Your task to perform on an android device: add a label to a message in the gmail app Image 0: 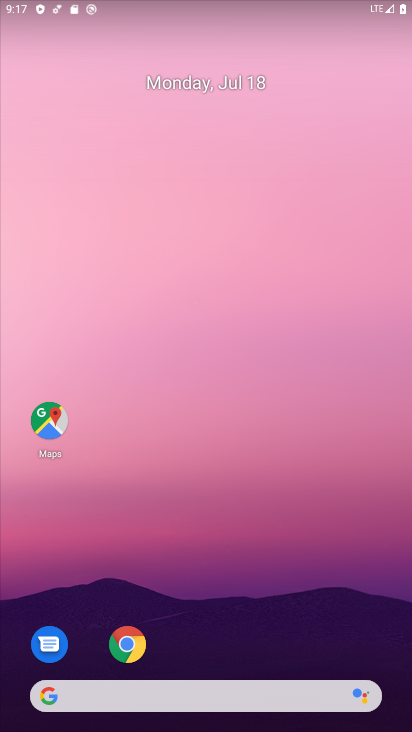
Step 0: drag from (312, 591) to (331, 197)
Your task to perform on an android device: add a label to a message in the gmail app Image 1: 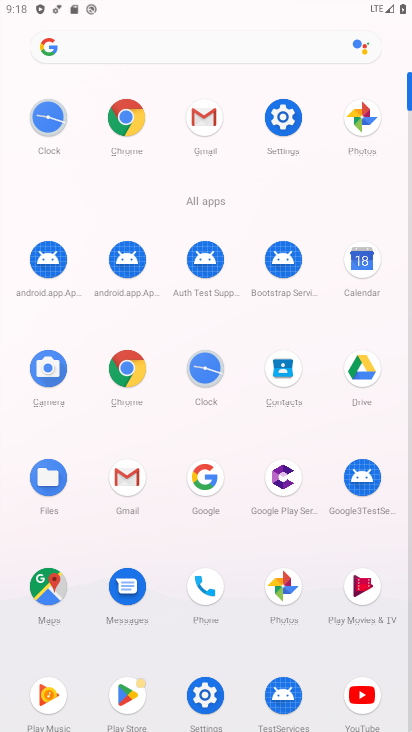
Step 1: click (127, 479)
Your task to perform on an android device: add a label to a message in the gmail app Image 2: 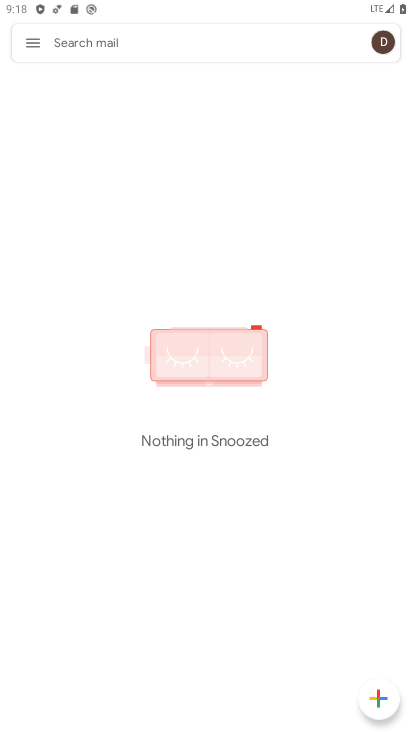
Step 2: click (32, 41)
Your task to perform on an android device: add a label to a message in the gmail app Image 3: 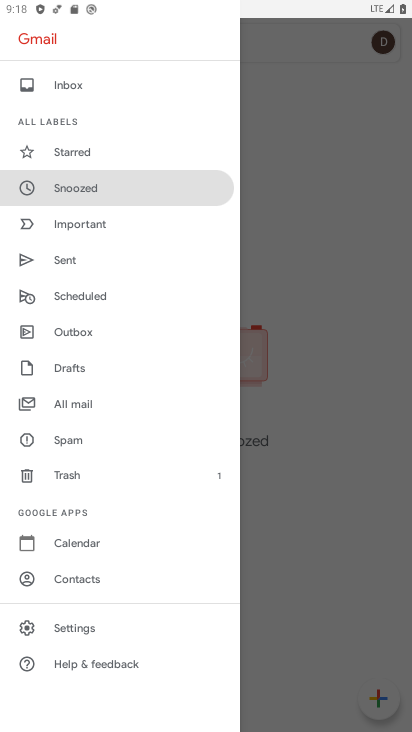
Step 3: drag from (158, 267) to (161, 357)
Your task to perform on an android device: add a label to a message in the gmail app Image 4: 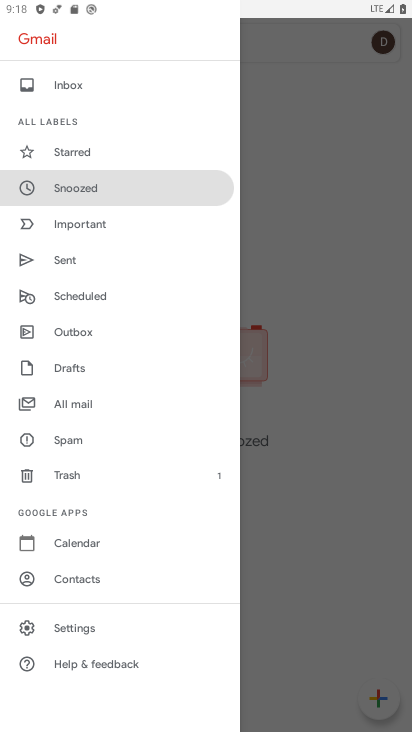
Step 4: click (88, 87)
Your task to perform on an android device: add a label to a message in the gmail app Image 5: 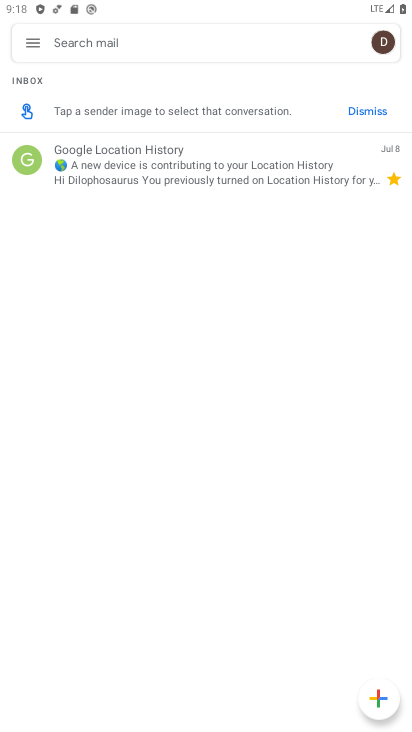
Step 5: click (209, 178)
Your task to perform on an android device: add a label to a message in the gmail app Image 6: 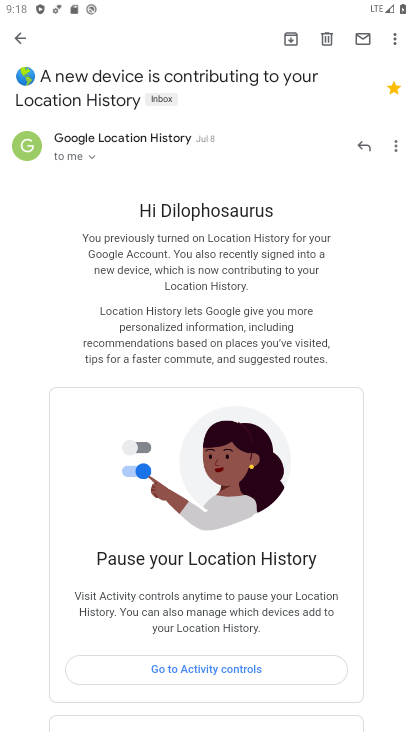
Step 6: click (166, 95)
Your task to perform on an android device: add a label to a message in the gmail app Image 7: 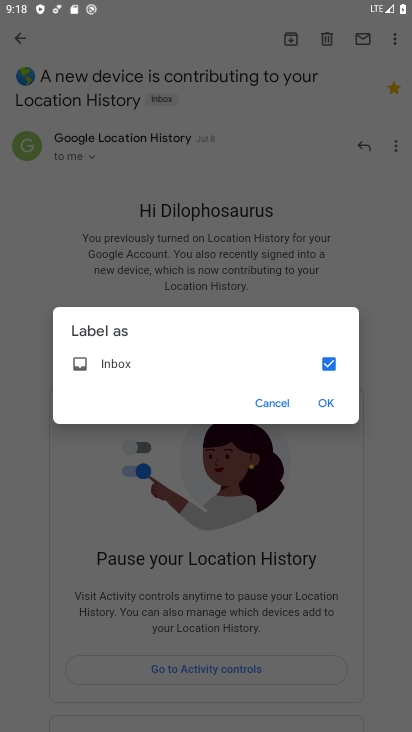
Step 7: click (328, 364)
Your task to perform on an android device: add a label to a message in the gmail app Image 8: 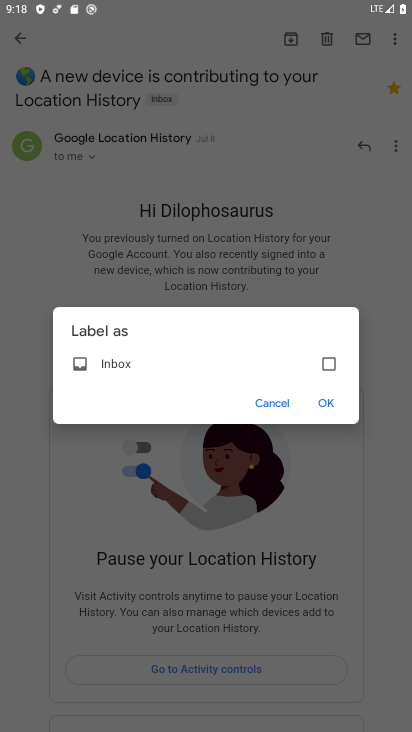
Step 8: click (328, 405)
Your task to perform on an android device: add a label to a message in the gmail app Image 9: 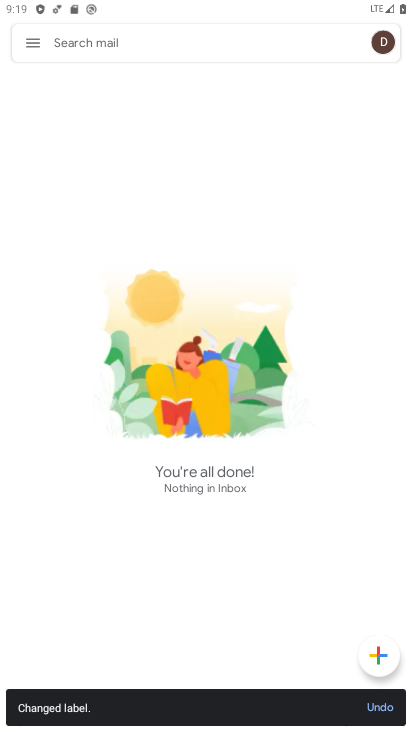
Step 9: task complete